Your task to perform on an android device: change text size in settings app Image 0: 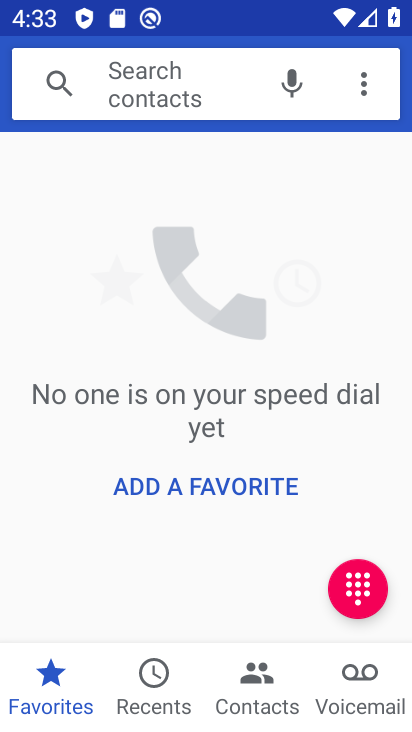
Step 0: press home button
Your task to perform on an android device: change text size in settings app Image 1: 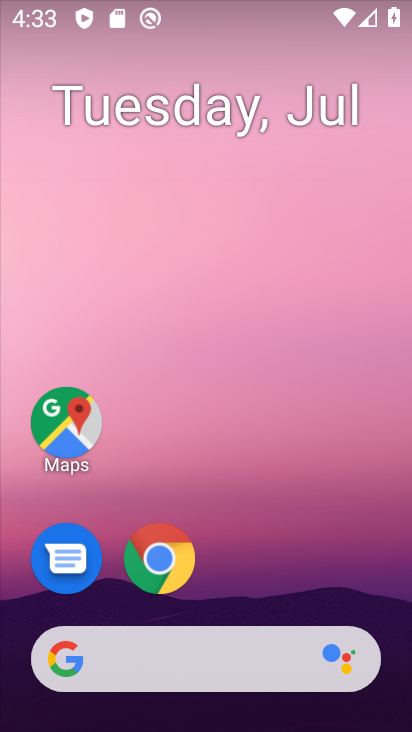
Step 1: drag from (223, 658) to (237, 182)
Your task to perform on an android device: change text size in settings app Image 2: 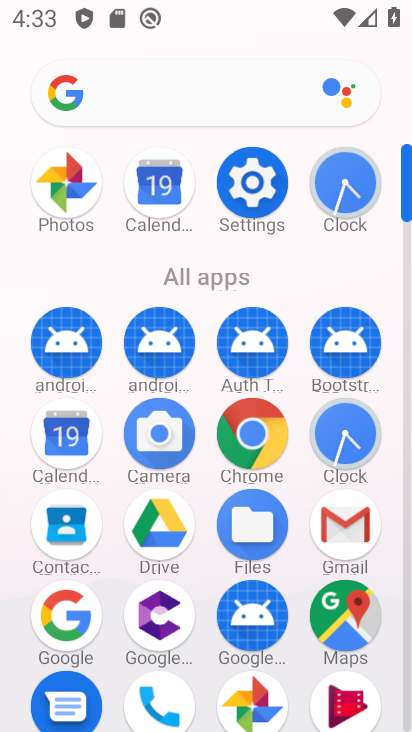
Step 2: drag from (271, 572) to (271, 383)
Your task to perform on an android device: change text size in settings app Image 3: 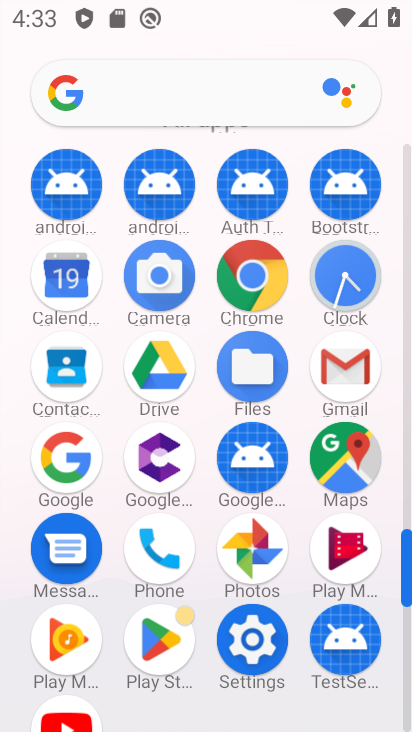
Step 3: click (253, 638)
Your task to perform on an android device: change text size in settings app Image 4: 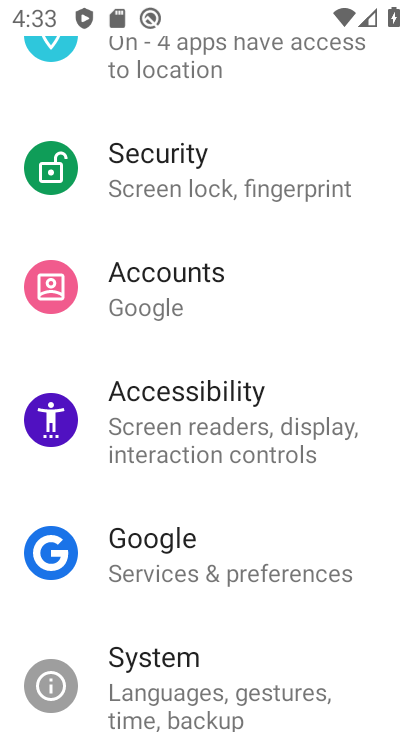
Step 4: drag from (216, 545) to (207, 616)
Your task to perform on an android device: change text size in settings app Image 5: 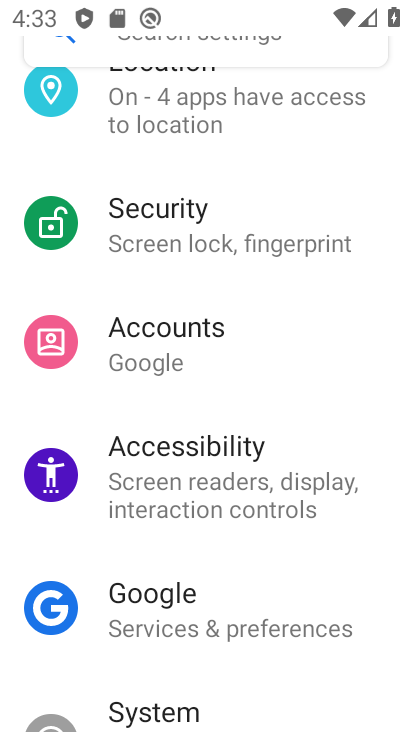
Step 5: drag from (212, 376) to (160, 660)
Your task to perform on an android device: change text size in settings app Image 6: 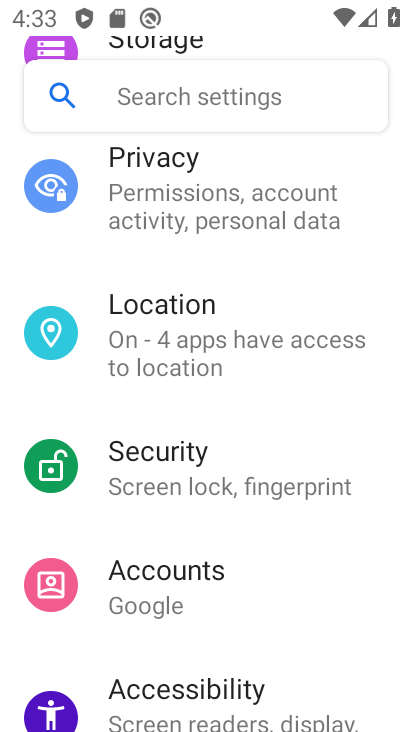
Step 6: drag from (196, 451) to (158, 639)
Your task to perform on an android device: change text size in settings app Image 7: 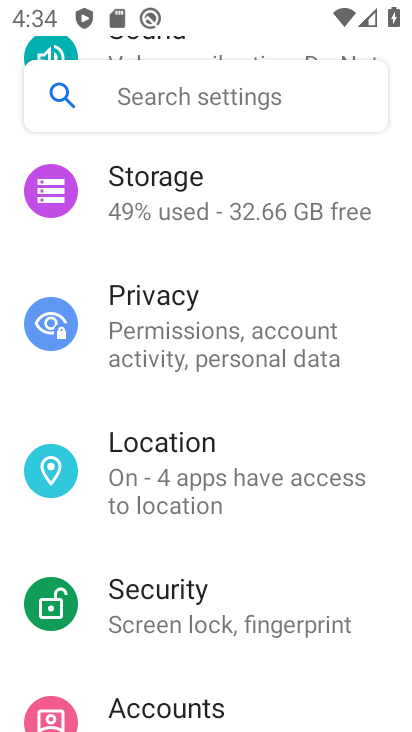
Step 7: drag from (222, 368) to (161, 603)
Your task to perform on an android device: change text size in settings app Image 8: 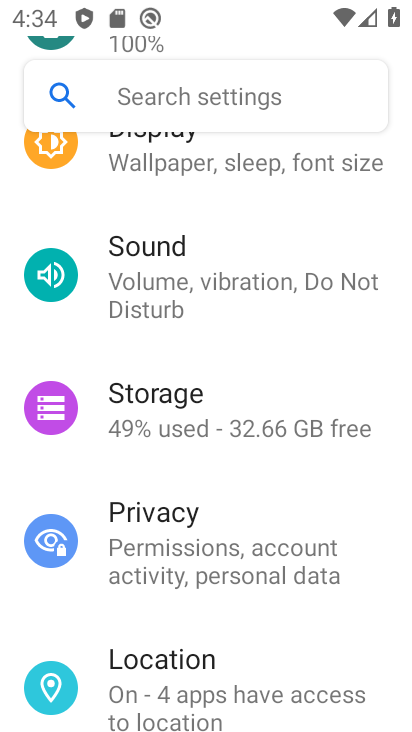
Step 8: drag from (187, 432) to (180, 536)
Your task to perform on an android device: change text size in settings app Image 9: 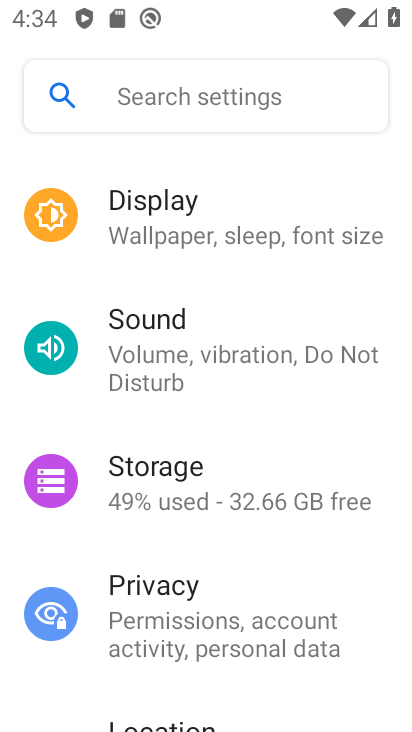
Step 9: drag from (161, 591) to (147, 317)
Your task to perform on an android device: change text size in settings app Image 10: 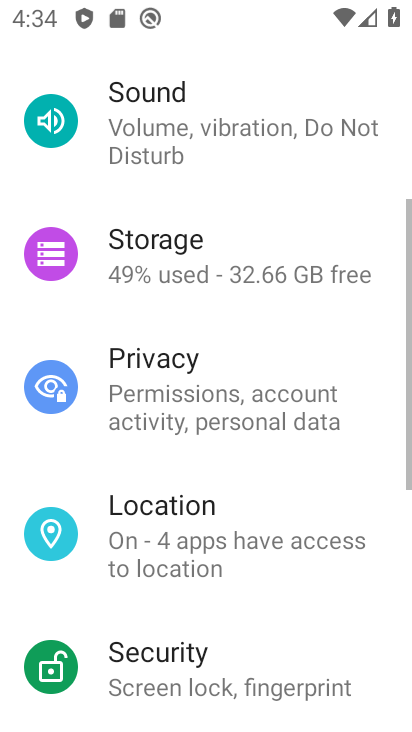
Step 10: drag from (147, 336) to (122, 669)
Your task to perform on an android device: change text size in settings app Image 11: 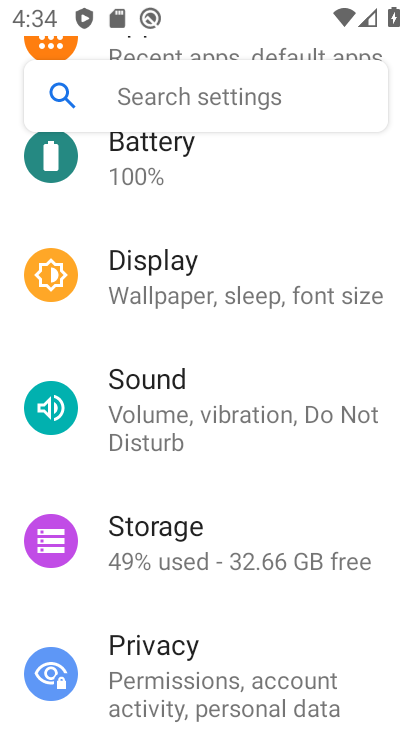
Step 11: drag from (201, 410) to (165, 629)
Your task to perform on an android device: change text size in settings app Image 12: 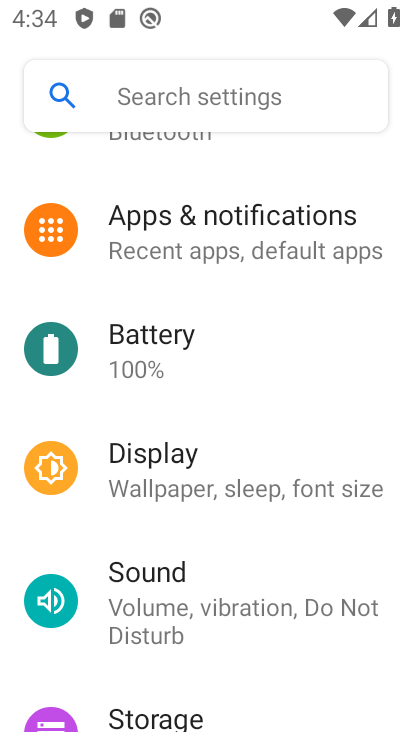
Step 12: drag from (195, 373) to (171, 562)
Your task to perform on an android device: change text size in settings app Image 13: 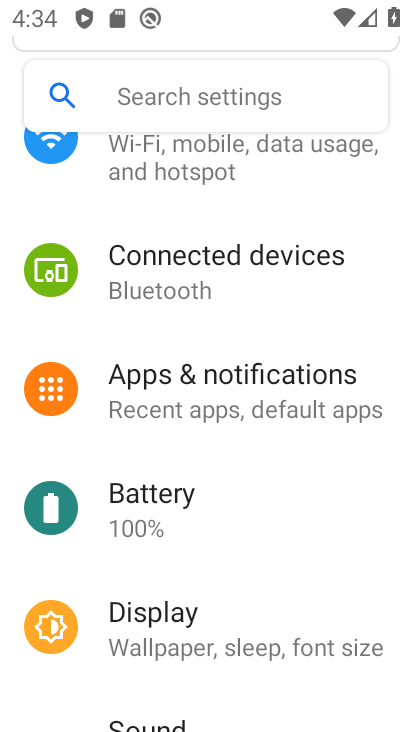
Step 13: drag from (205, 362) to (153, 652)
Your task to perform on an android device: change text size in settings app Image 14: 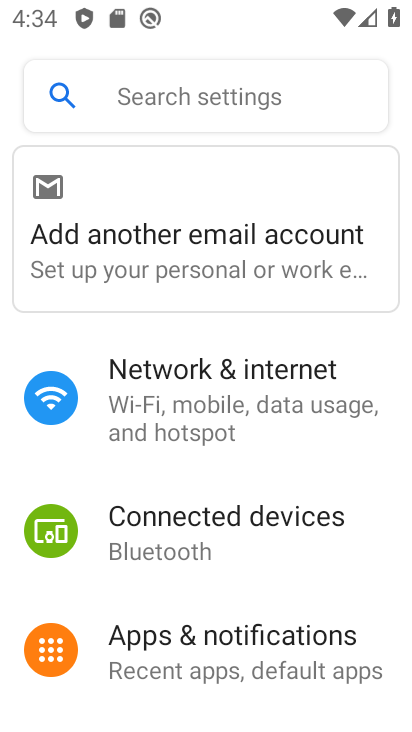
Step 14: drag from (183, 560) to (181, 358)
Your task to perform on an android device: change text size in settings app Image 15: 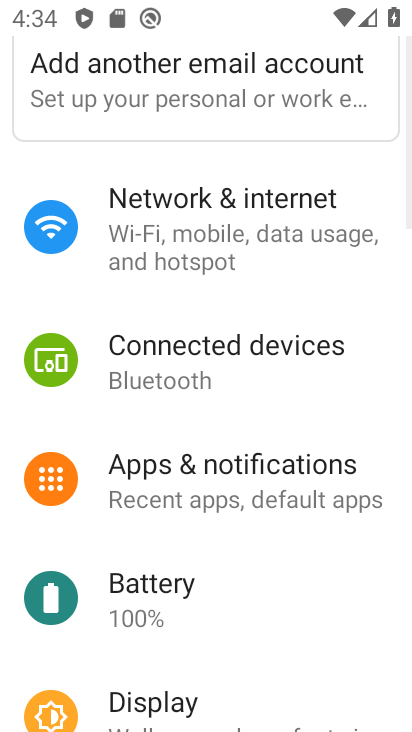
Step 15: drag from (149, 586) to (162, 318)
Your task to perform on an android device: change text size in settings app Image 16: 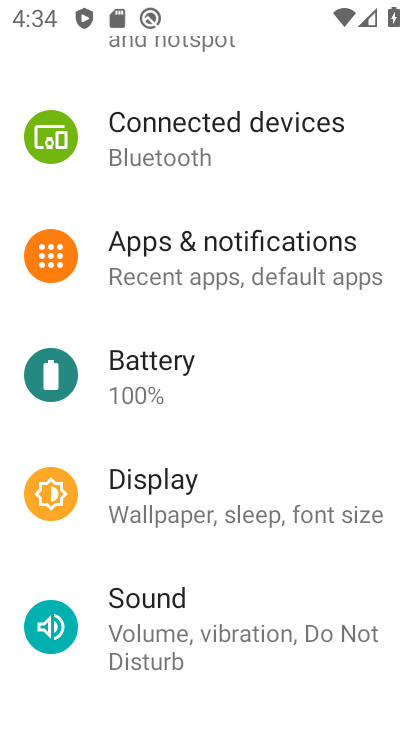
Step 16: drag from (175, 599) to (180, 528)
Your task to perform on an android device: change text size in settings app Image 17: 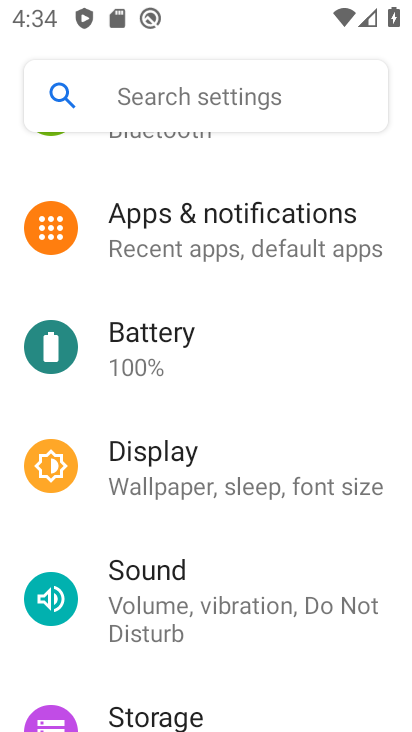
Step 17: click (189, 478)
Your task to perform on an android device: change text size in settings app Image 18: 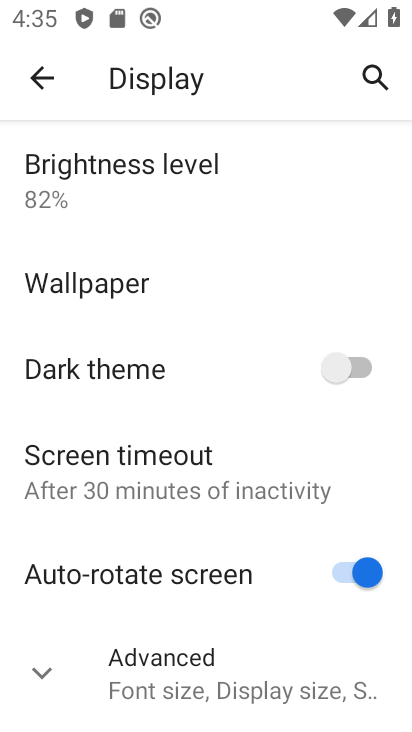
Step 18: drag from (142, 631) to (128, 435)
Your task to perform on an android device: change text size in settings app Image 19: 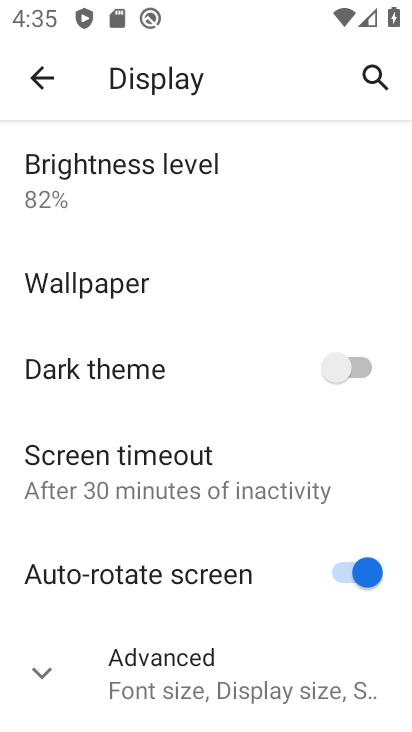
Step 19: click (108, 665)
Your task to perform on an android device: change text size in settings app Image 20: 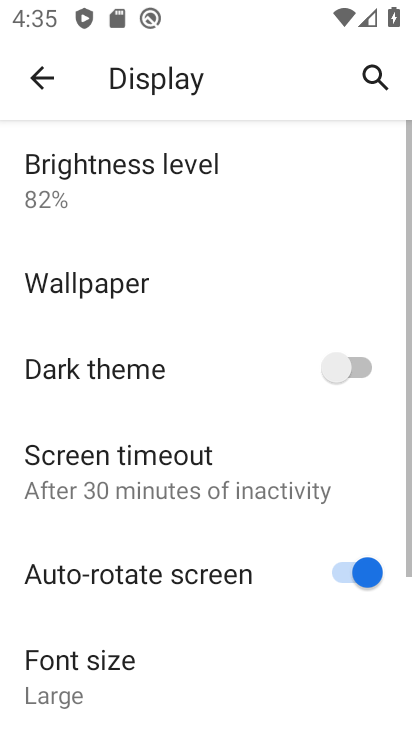
Step 20: drag from (114, 639) to (131, 386)
Your task to perform on an android device: change text size in settings app Image 21: 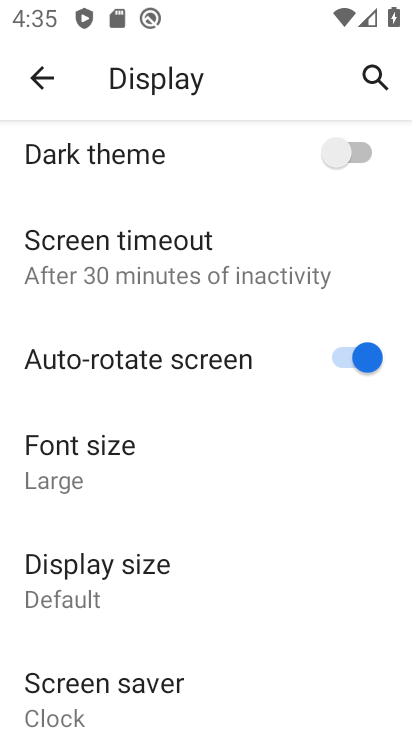
Step 21: click (100, 463)
Your task to perform on an android device: change text size in settings app Image 22: 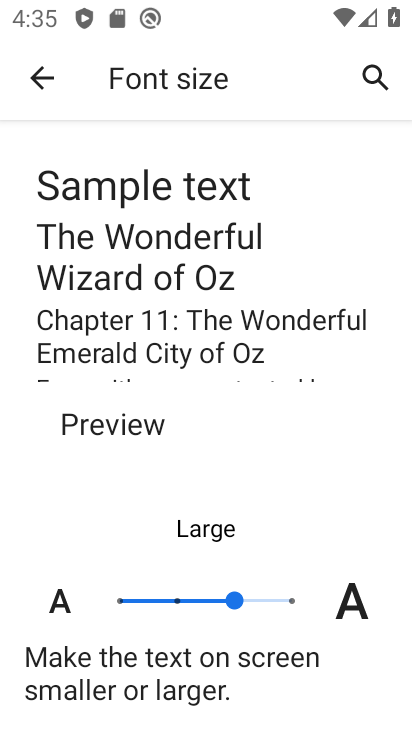
Step 22: click (175, 599)
Your task to perform on an android device: change text size in settings app Image 23: 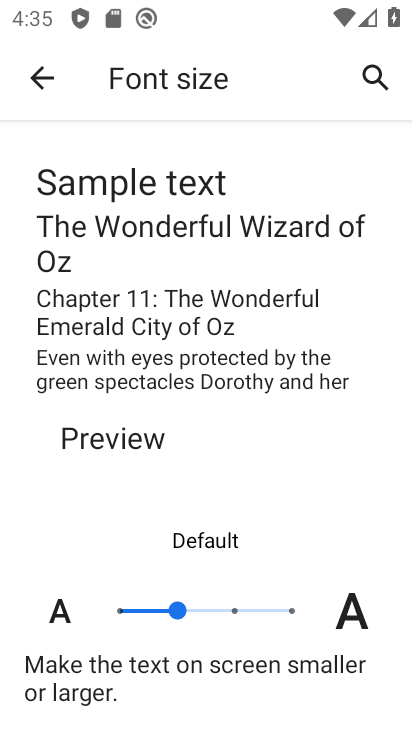
Step 23: task complete